Your task to perform on an android device: View the shopping cart on bestbuy. Search for razer blade on bestbuy, select the first entry, and add it to the cart. Image 0: 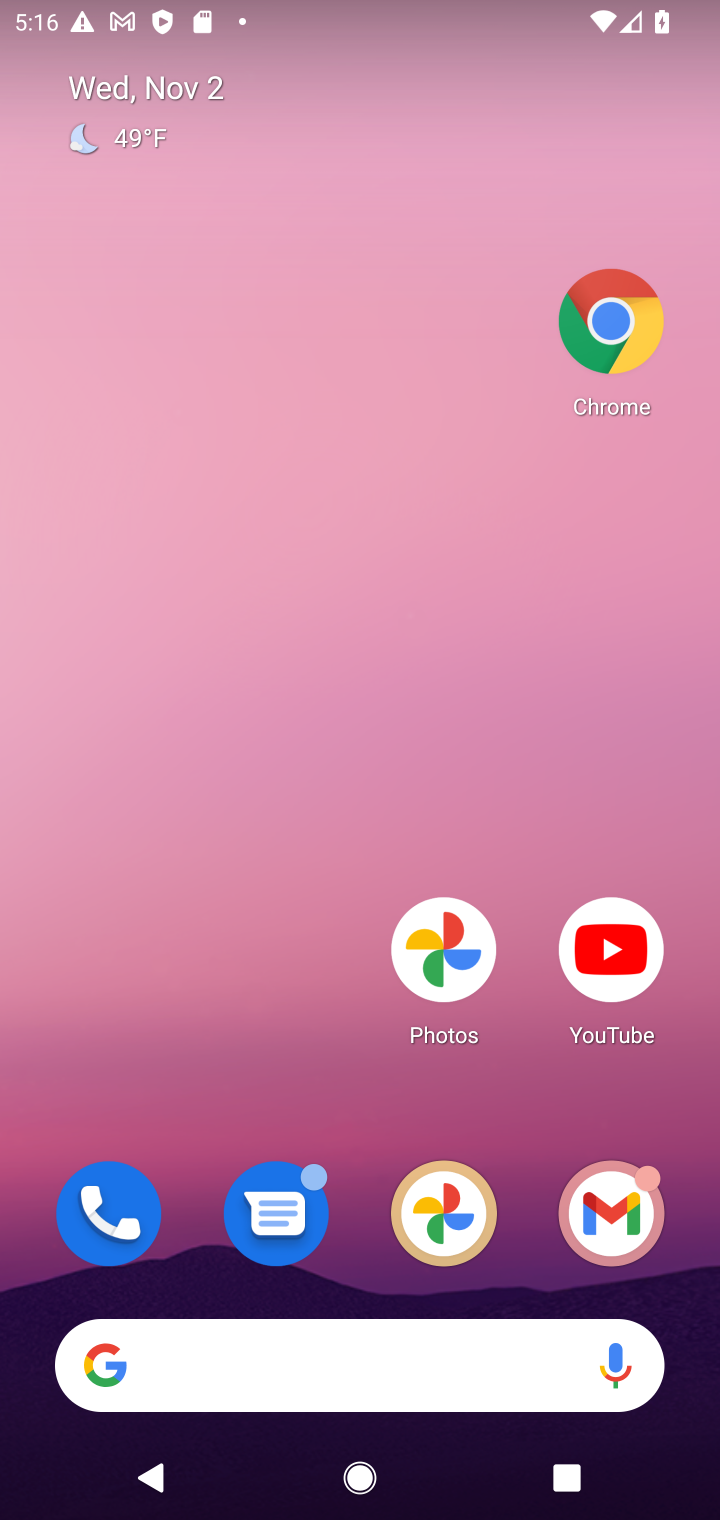
Step 0: click (395, 718)
Your task to perform on an android device: View the shopping cart on bestbuy. Search for razer blade on bestbuy, select the first entry, and add it to the cart. Image 1: 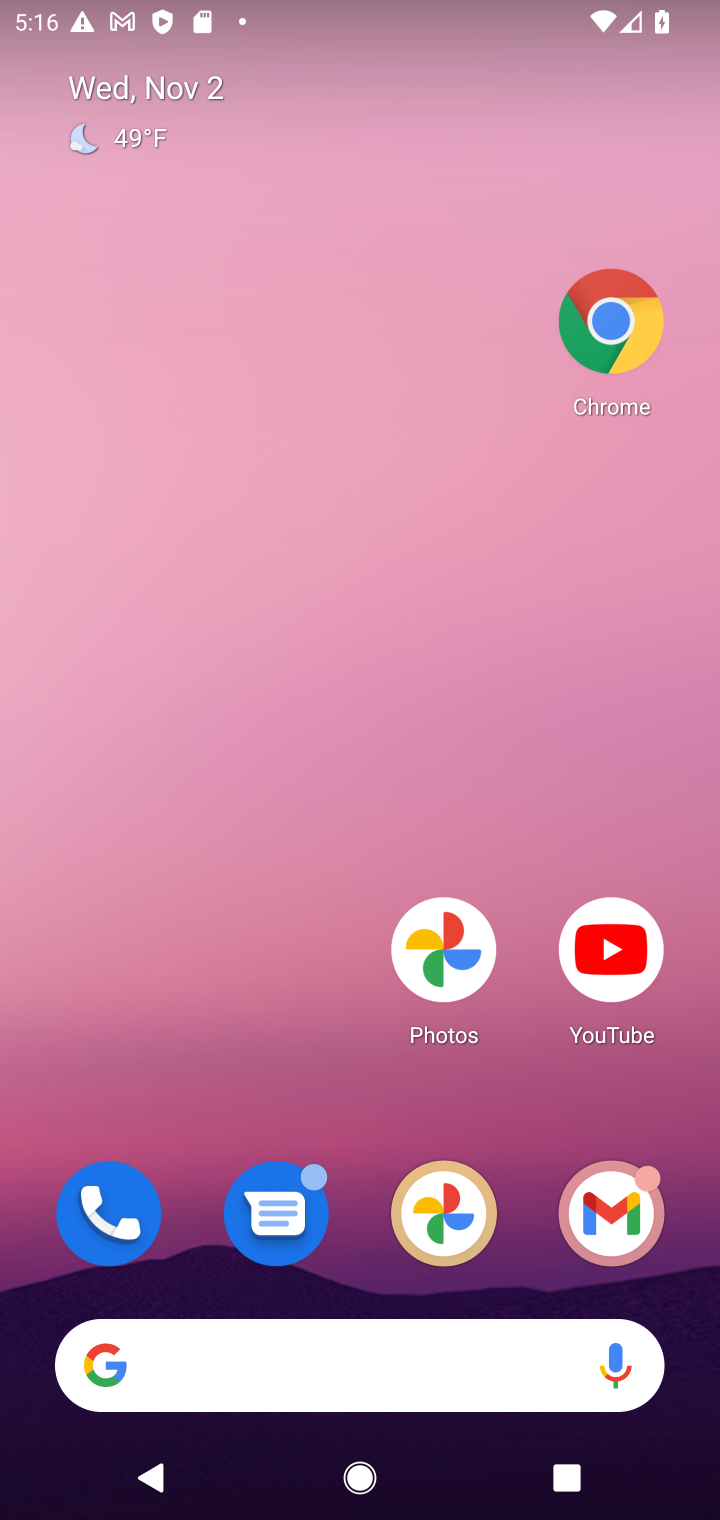
Step 1: drag from (380, 1201) to (474, 203)
Your task to perform on an android device: View the shopping cart on bestbuy. Search for razer blade on bestbuy, select the first entry, and add it to the cart. Image 2: 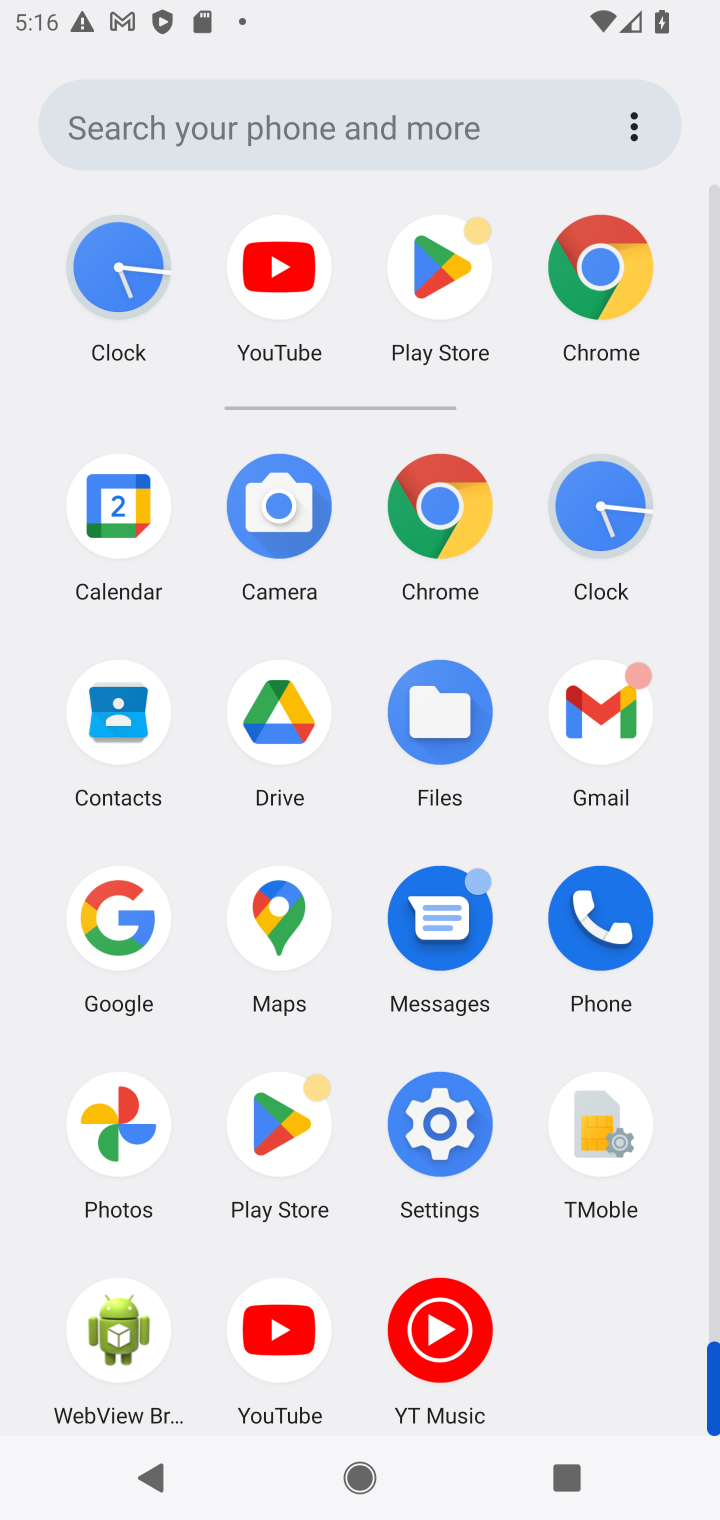
Step 2: click (91, 959)
Your task to perform on an android device: View the shopping cart on bestbuy. Search for razer blade on bestbuy, select the first entry, and add it to the cart. Image 3: 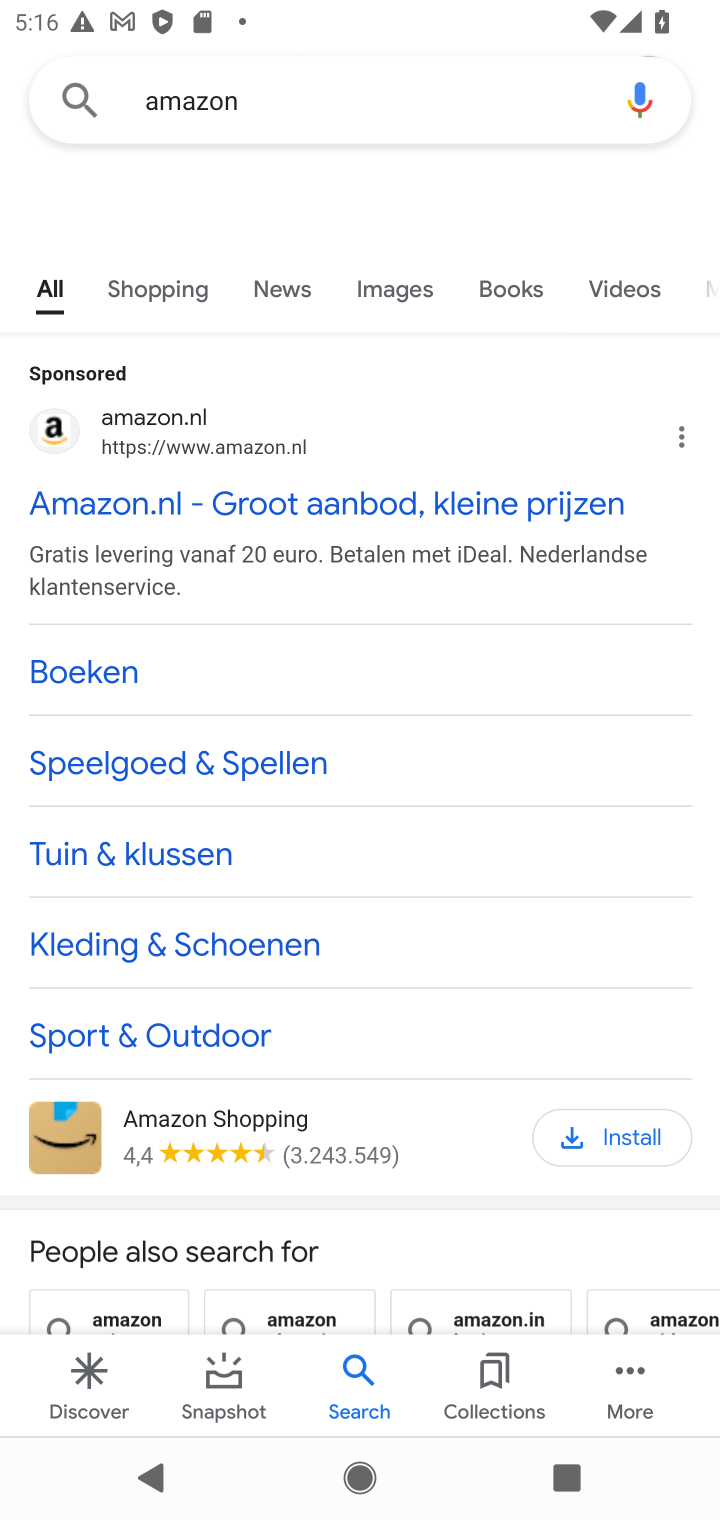
Step 3: click (398, 108)
Your task to perform on an android device: View the shopping cart on bestbuy. Search for razer blade on bestbuy, select the first entry, and add it to the cart. Image 4: 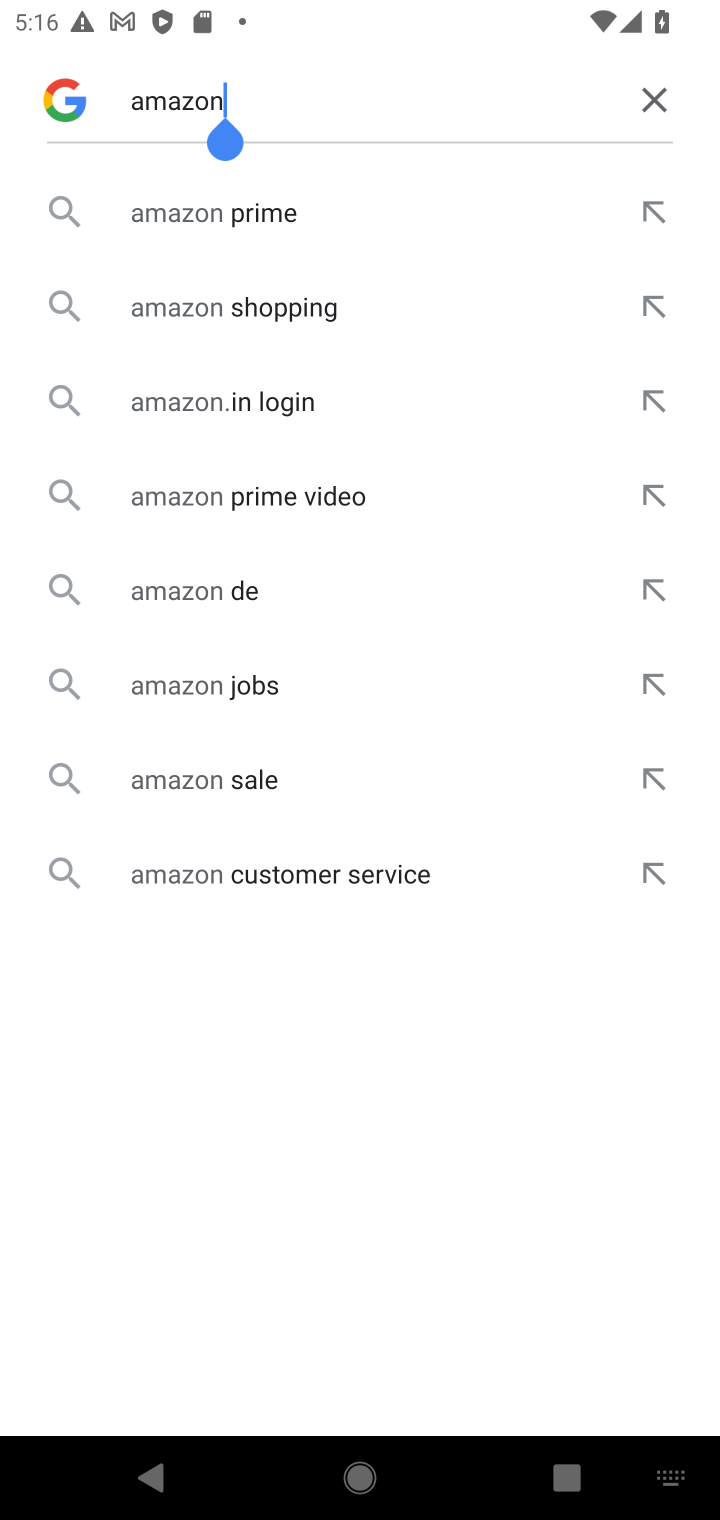
Step 4: click (642, 99)
Your task to perform on an android device: View the shopping cart on bestbuy. Search for razer blade on bestbuy, select the first entry, and add it to the cart. Image 5: 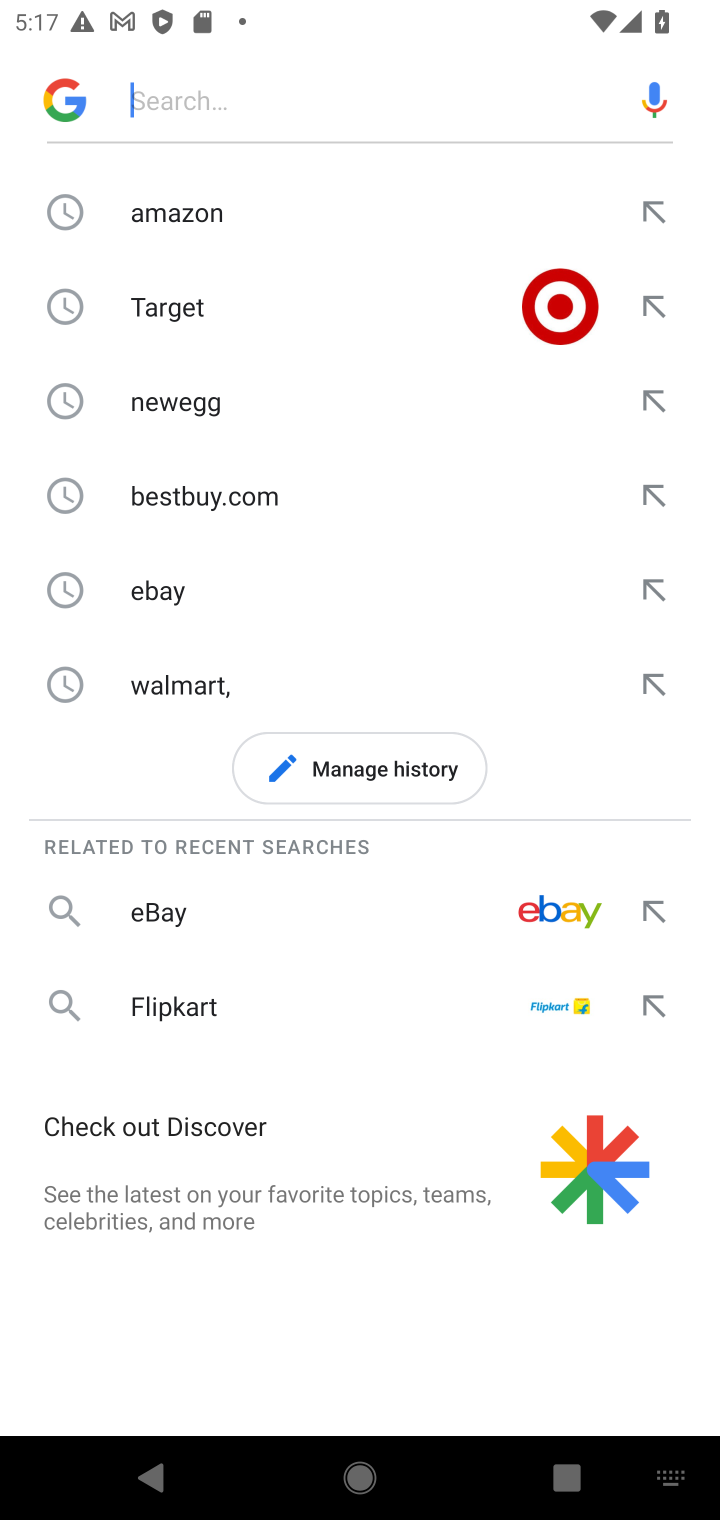
Step 5: type "bestbuy"
Your task to perform on an android device: View the shopping cart on bestbuy. Search for razer blade on bestbuy, select the first entry, and add it to the cart. Image 6: 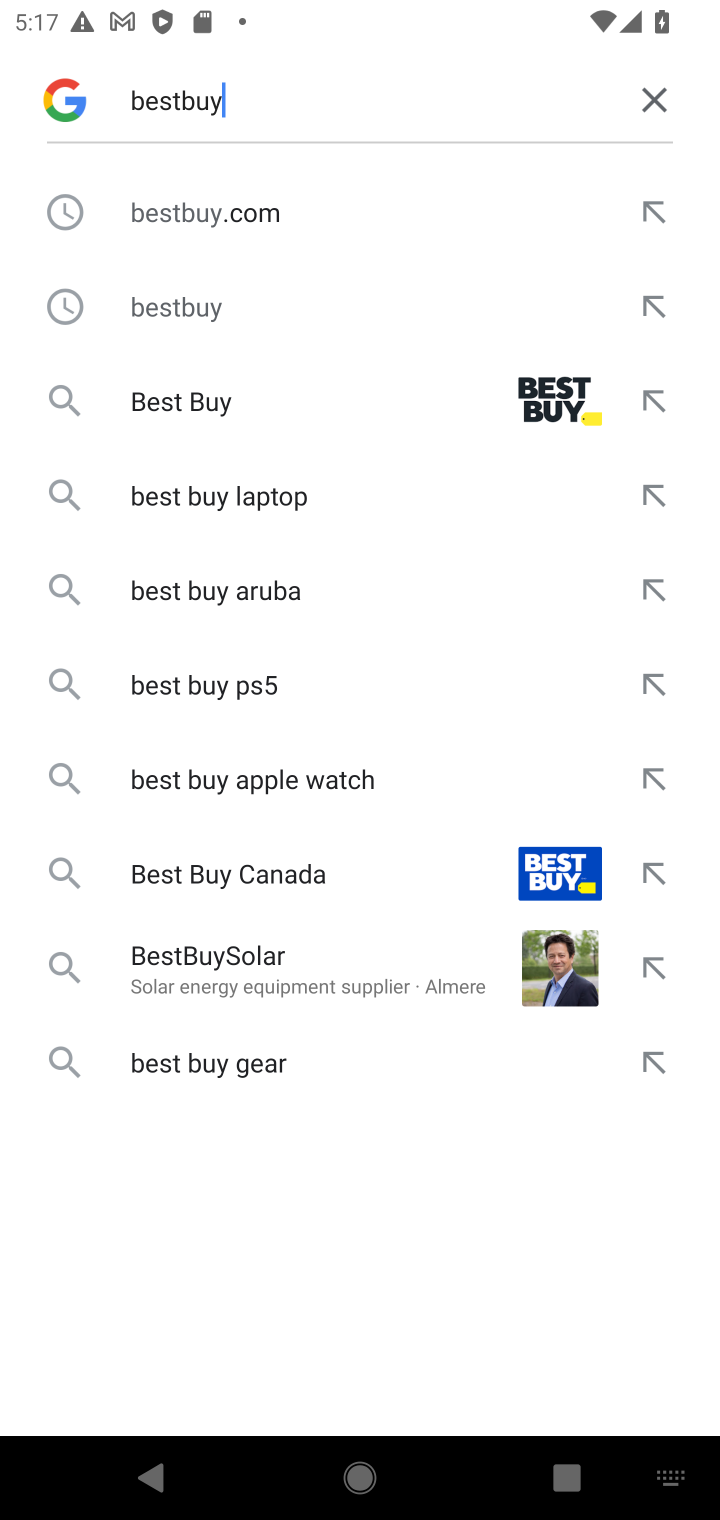
Step 6: click (262, 316)
Your task to perform on an android device: View the shopping cart on bestbuy. Search for razer blade on bestbuy, select the first entry, and add it to the cart. Image 7: 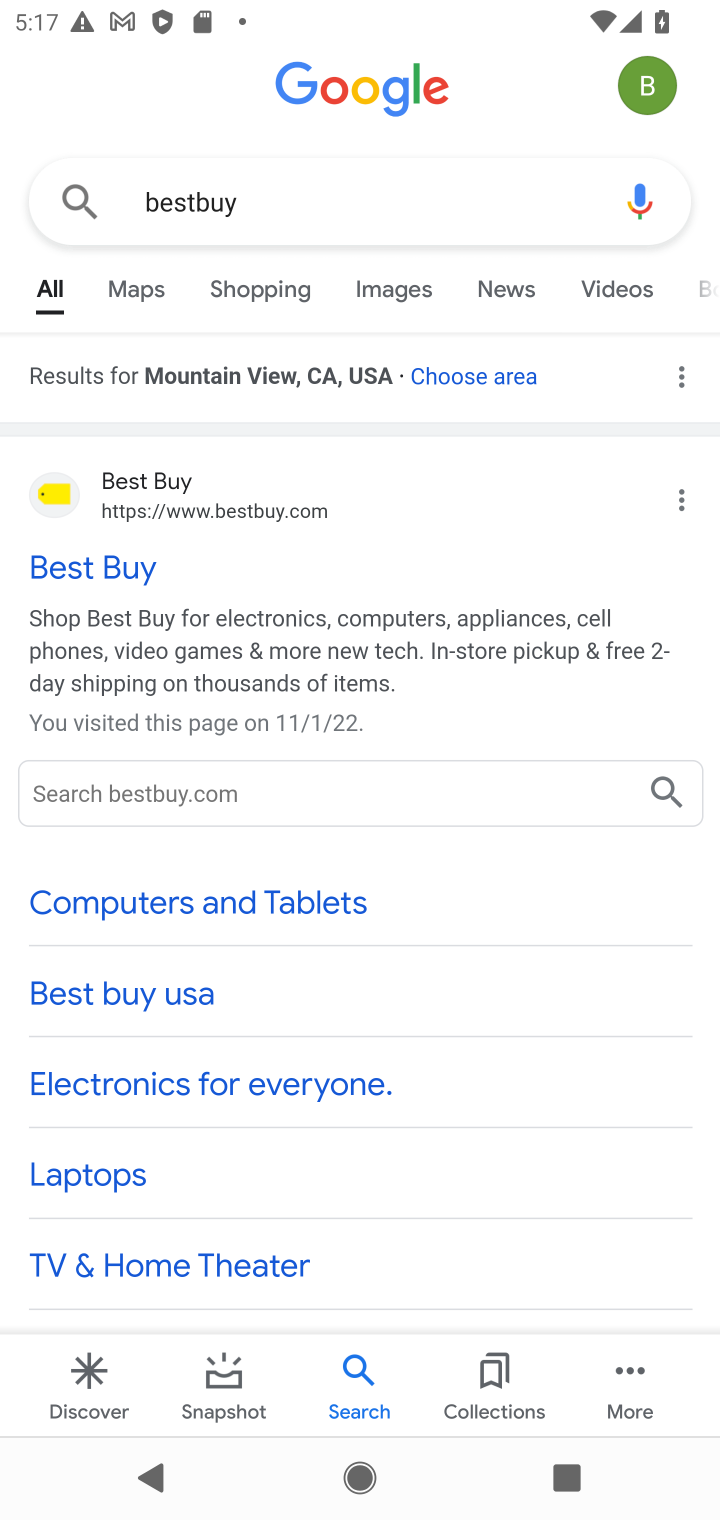
Step 7: click (82, 584)
Your task to perform on an android device: View the shopping cart on bestbuy. Search for razer blade on bestbuy, select the first entry, and add it to the cart. Image 8: 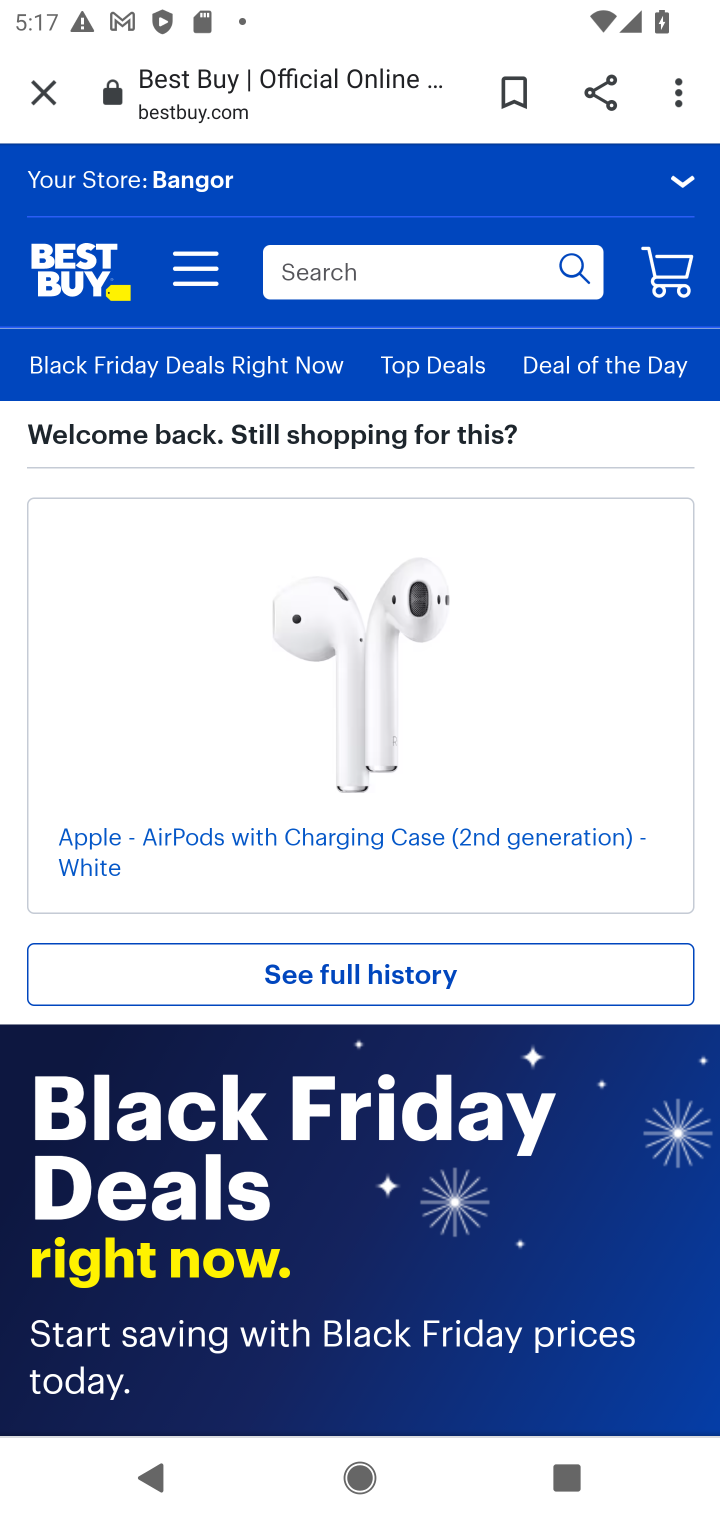
Step 8: click (372, 275)
Your task to perform on an android device: View the shopping cart on bestbuy. Search for razer blade on bestbuy, select the first entry, and add it to the cart. Image 9: 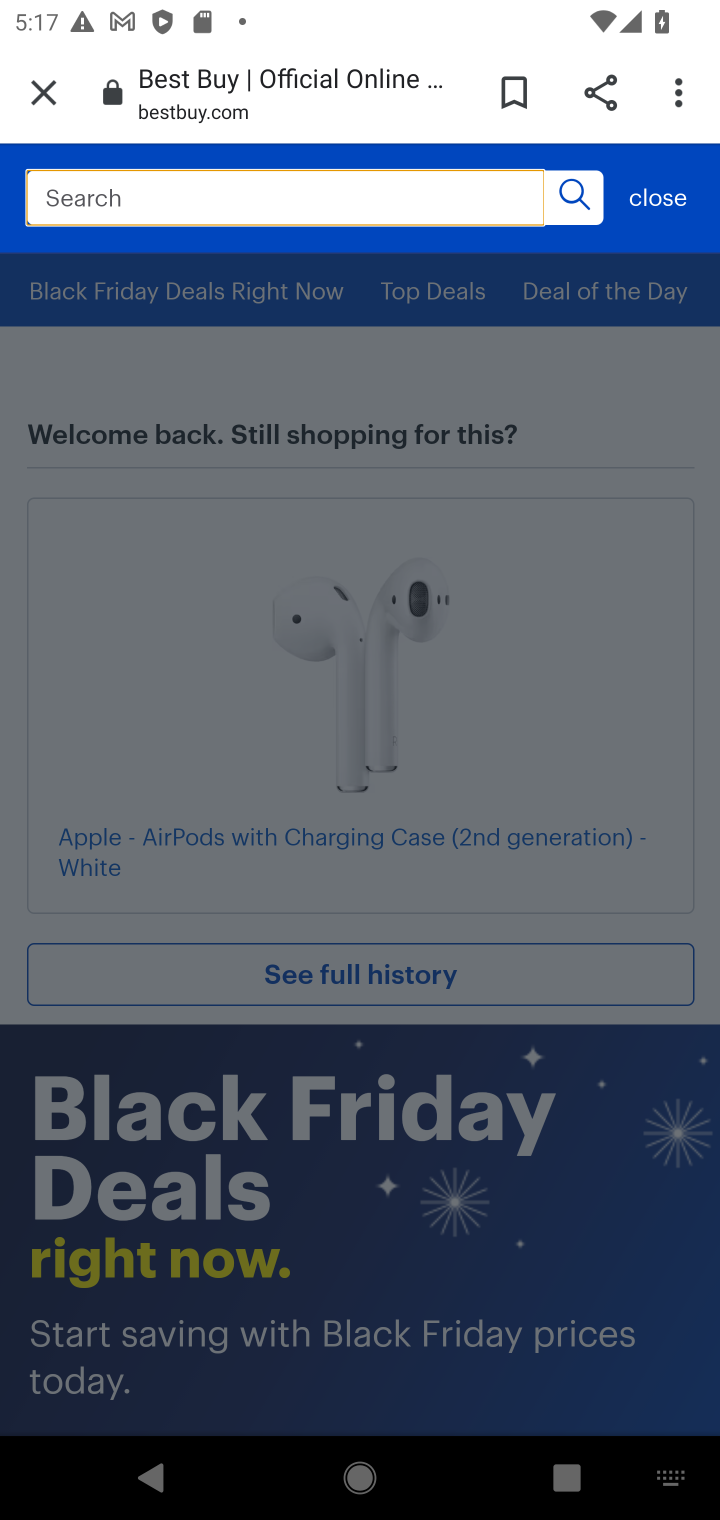
Step 9: type "razer blade"
Your task to perform on an android device: View the shopping cart on bestbuy. Search for razer blade on bestbuy, select the first entry, and add it to the cart. Image 10: 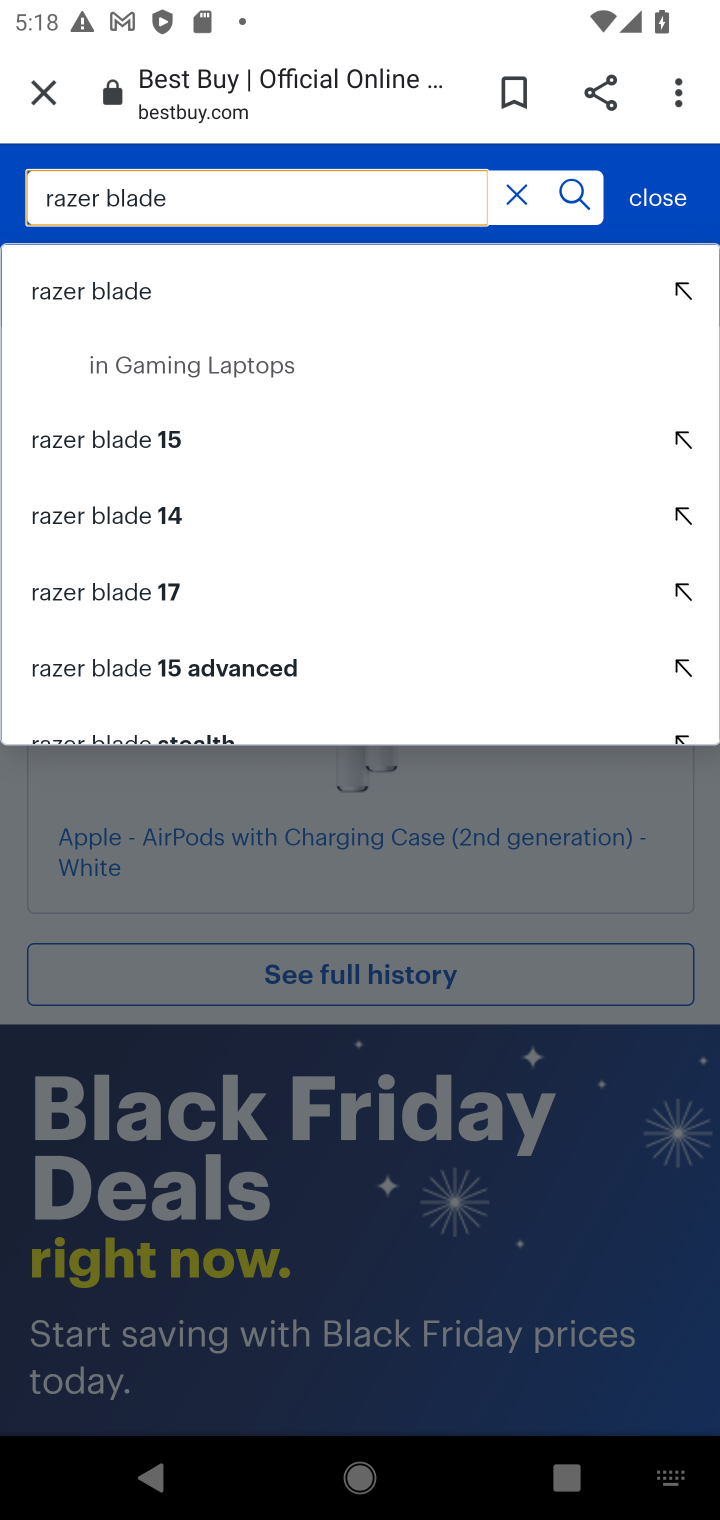
Step 10: click (249, 296)
Your task to perform on an android device: View the shopping cart on bestbuy. Search for razer blade on bestbuy, select the first entry, and add it to the cart. Image 11: 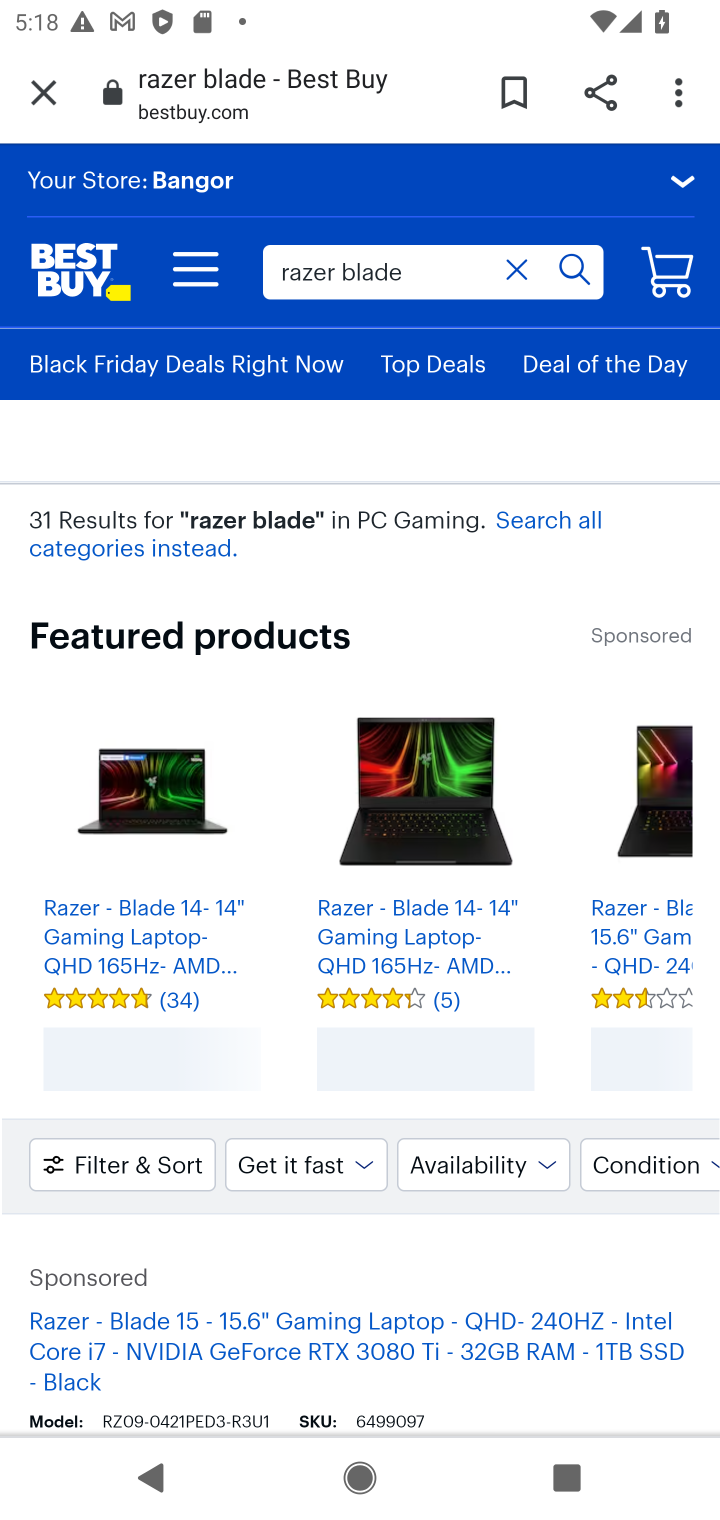
Step 11: click (102, 942)
Your task to perform on an android device: View the shopping cart on bestbuy. Search for razer blade on bestbuy, select the first entry, and add it to the cart. Image 12: 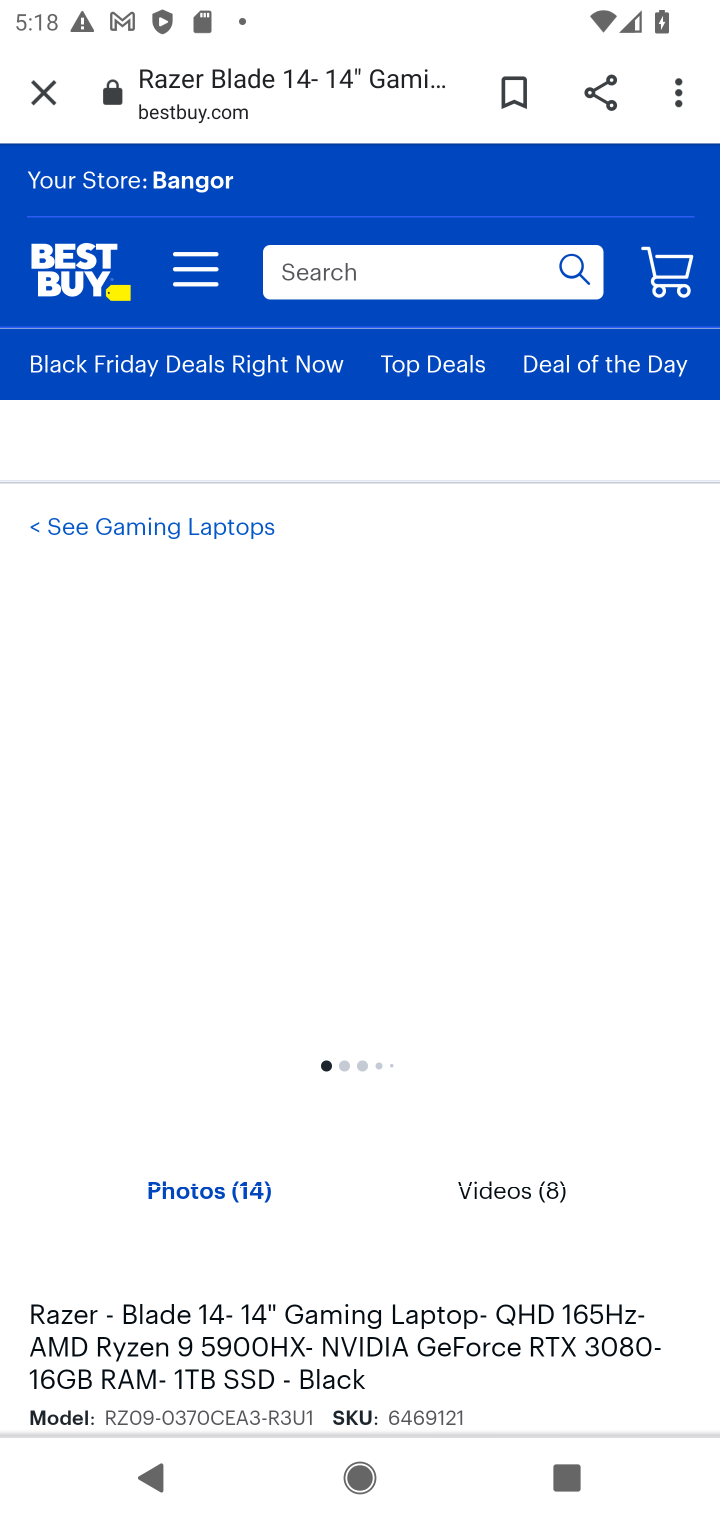
Step 12: click (102, 942)
Your task to perform on an android device: View the shopping cart on bestbuy. Search for razer blade on bestbuy, select the first entry, and add it to the cart. Image 13: 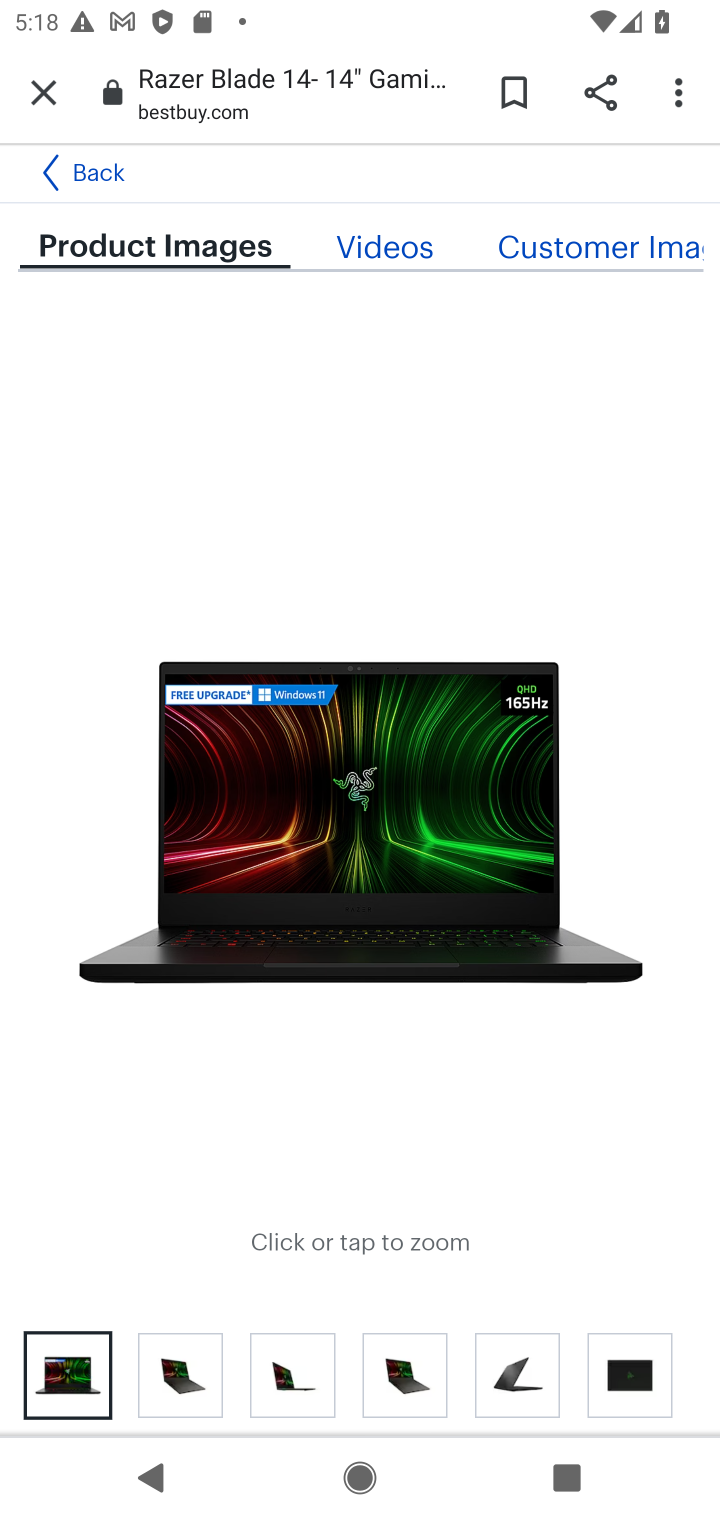
Step 13: drag from (409, 1021) to (368, 496)
Your task to perform on an android device: View the shopping cart on bestbuy. Search for razer blade on bestbuy, select the first entry, and add it to the cart. Image 14: 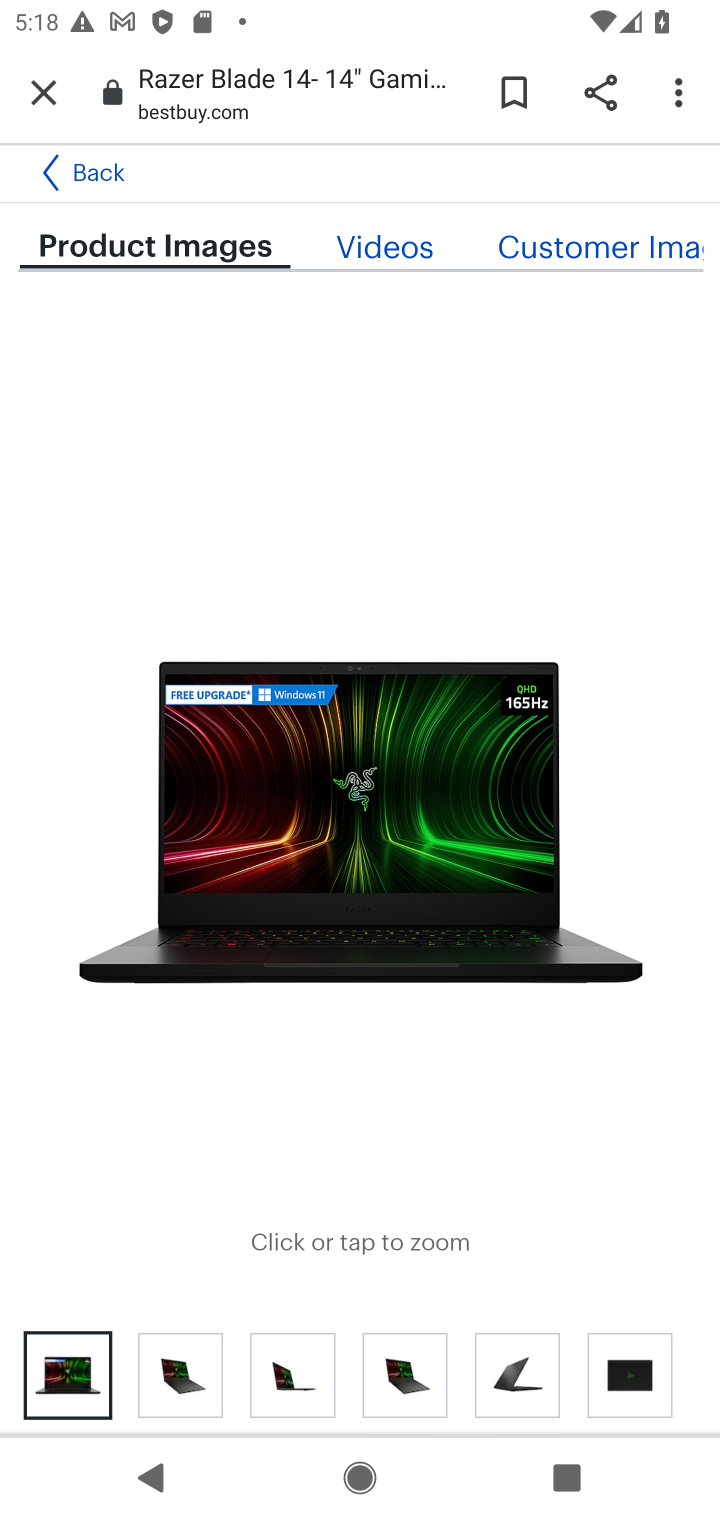
Step 14: click (236, 384)
Your task to perform on an android device: View the shopping cart on bestbuy. Search for razer blade on bestbuy, select the first entry, and add it to the cart. Image 15: 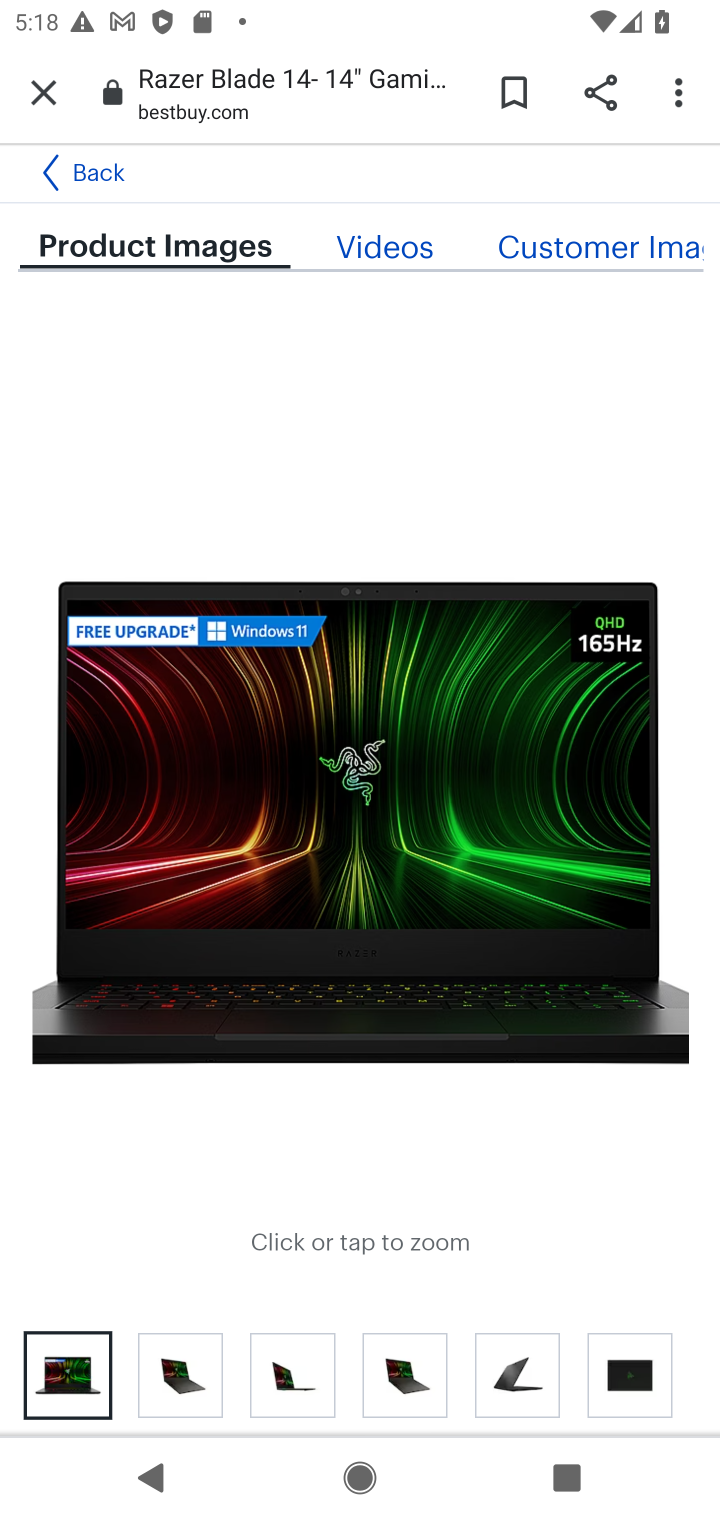
Step 15: click (68, 175)
Your task to perform on an android device: View the shopping cart on bestbuy. Search for razer blade on bestbuy, select the first entry, and add it to the cart. Image 16: 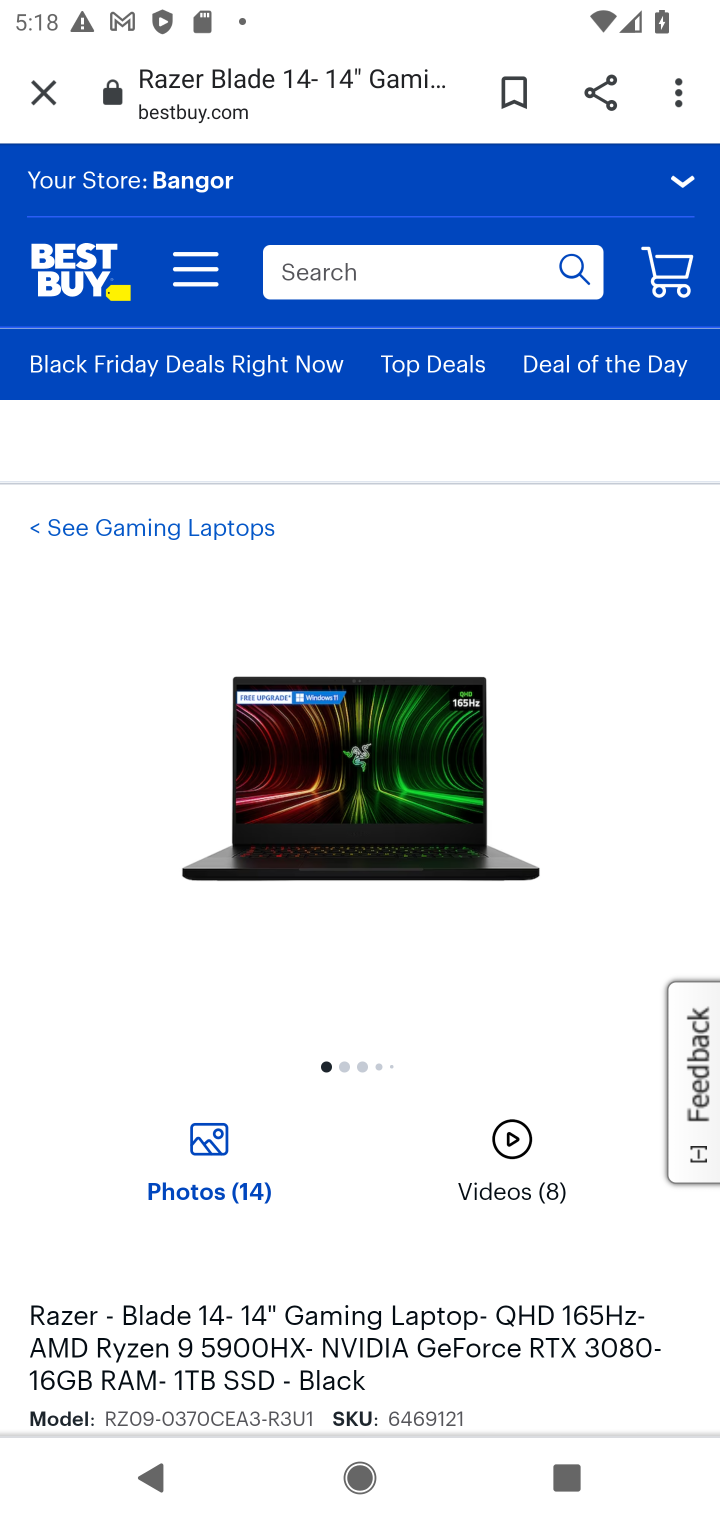
Step 16: drag from (544, 1093) to (548, 371)
Your task to perform on an android device: View the shopping cart on bestbuy. Search for razer blade on bestbuy, select the first entry, and add it to the cart. Image 17: 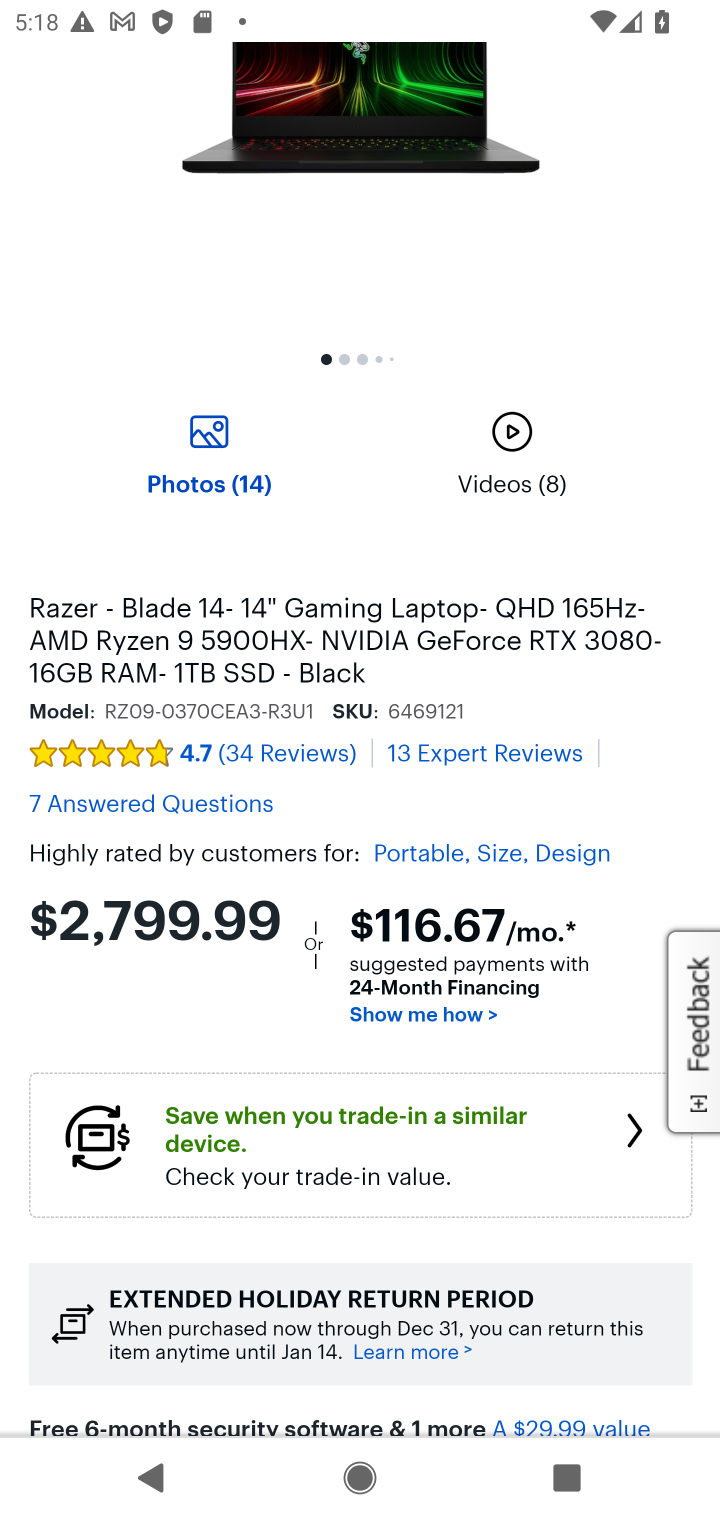
Step 17: drag from (520, 1104) to (455, 403)
Your task to perform on an android device: View the shopping cart on bestbuy. Search for razer blade on bestbuy, select the first entry, and add it to the cart. Image 18: 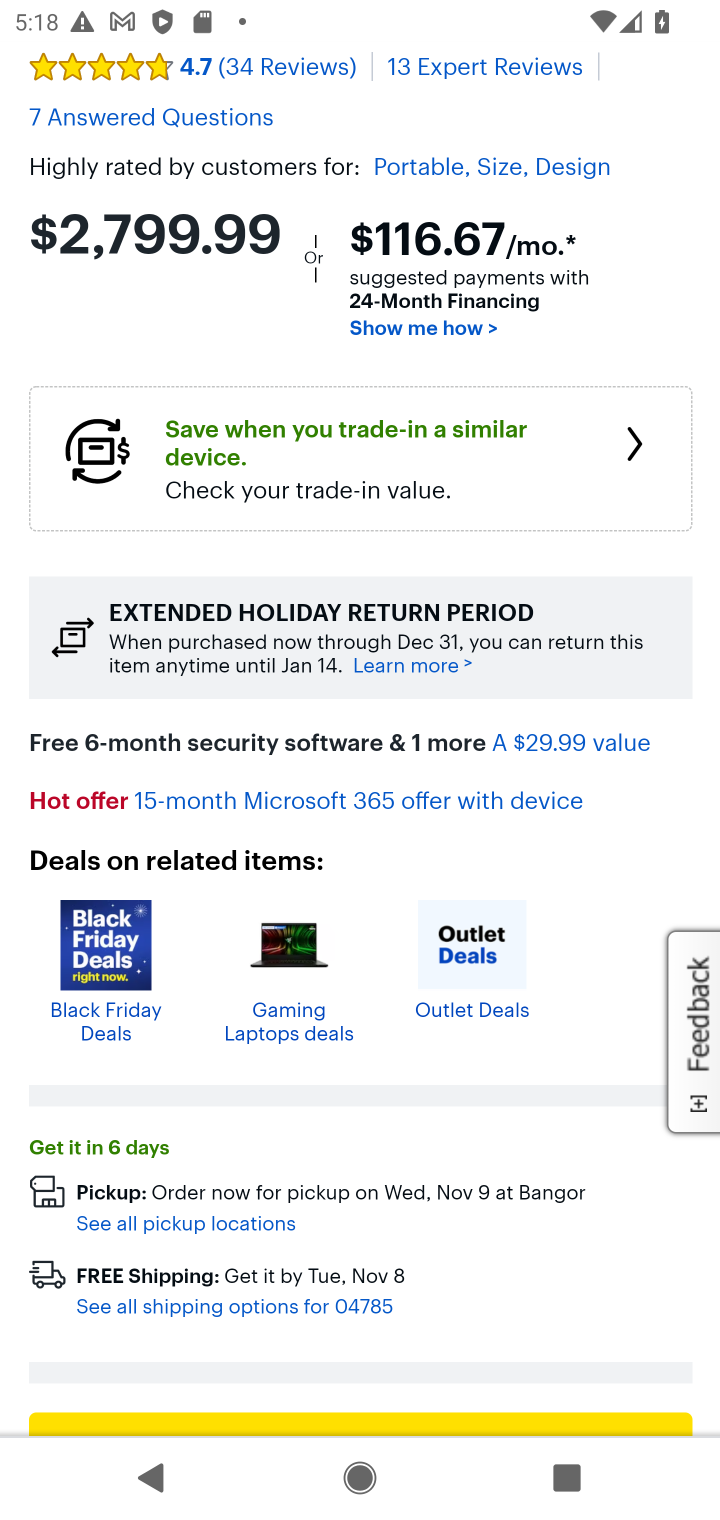
Step 18: click (554, 437)
Your task to perform on an android device: View the shopping cart on bestbuy. Search for razer blade on bestbuy, select the first entry, and add it to the cart. Image 19: 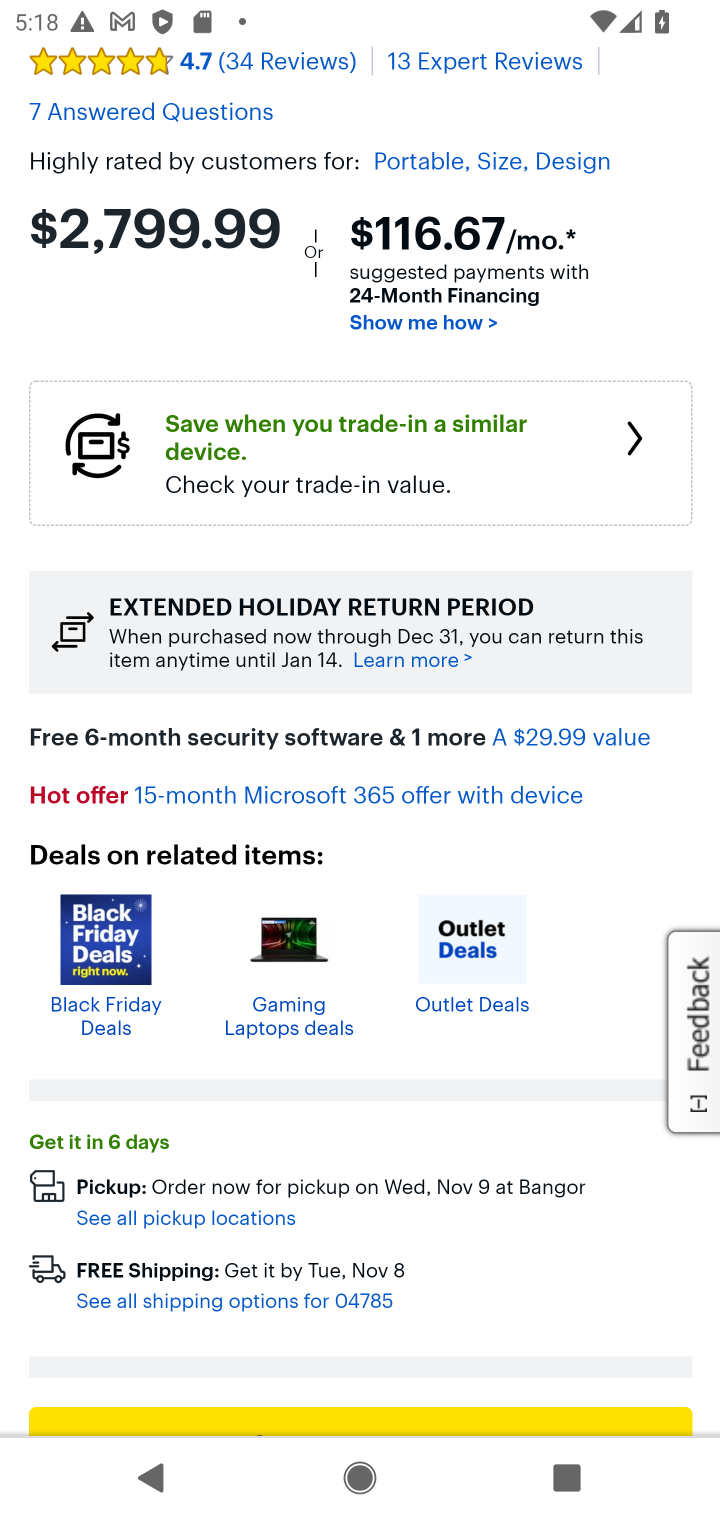
Step 19: drag from (529, 1272) to (526, 408)
Your task to perform on an android device: View the shopping cart on bestbuy. Search for razer blade on bestbuy, select the first entry, and add it to the cart. Image 20: 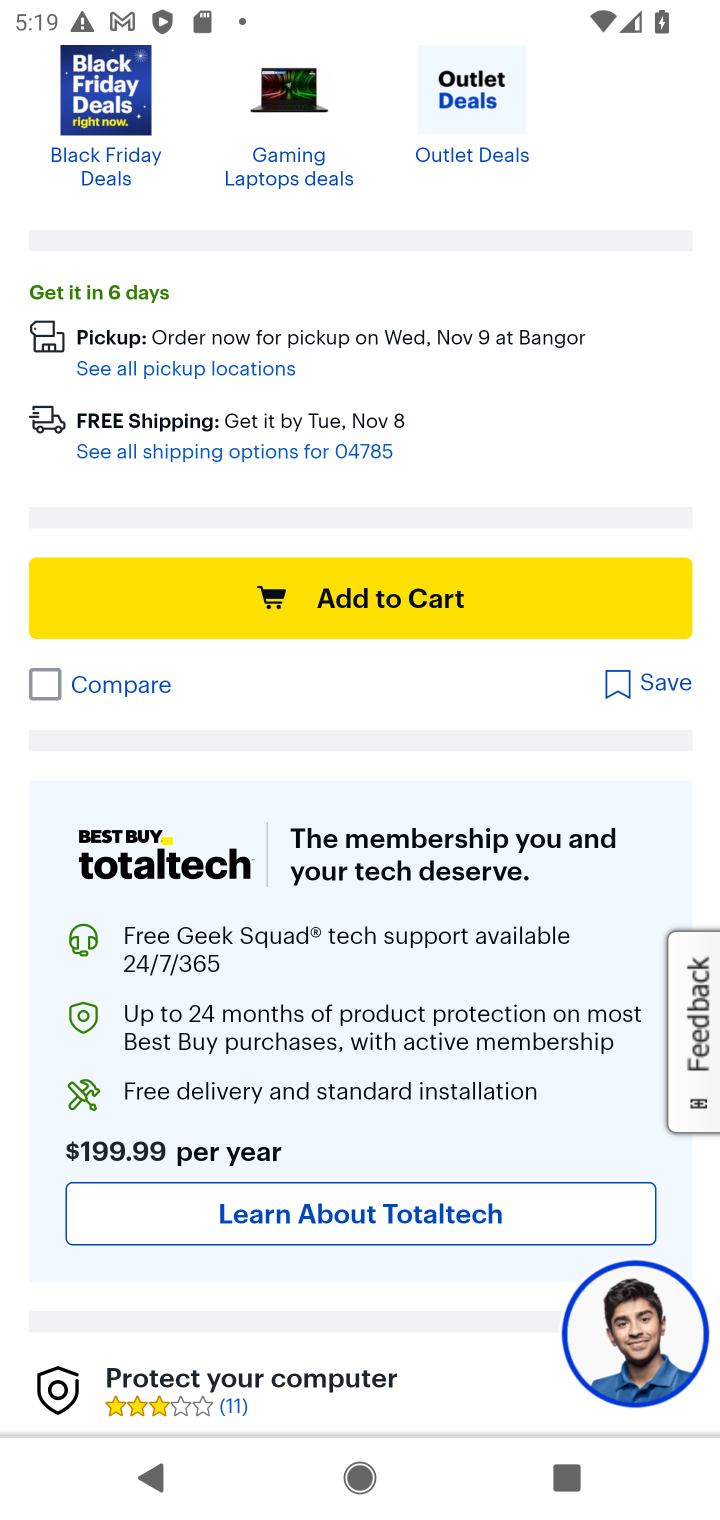
Step 20: click (517, 590)
Your task to perform on an android device: View the shopping cart on bestbuy. Search for razer blade on bestbuy, select the first entry, and add it to the cart. Image 21: 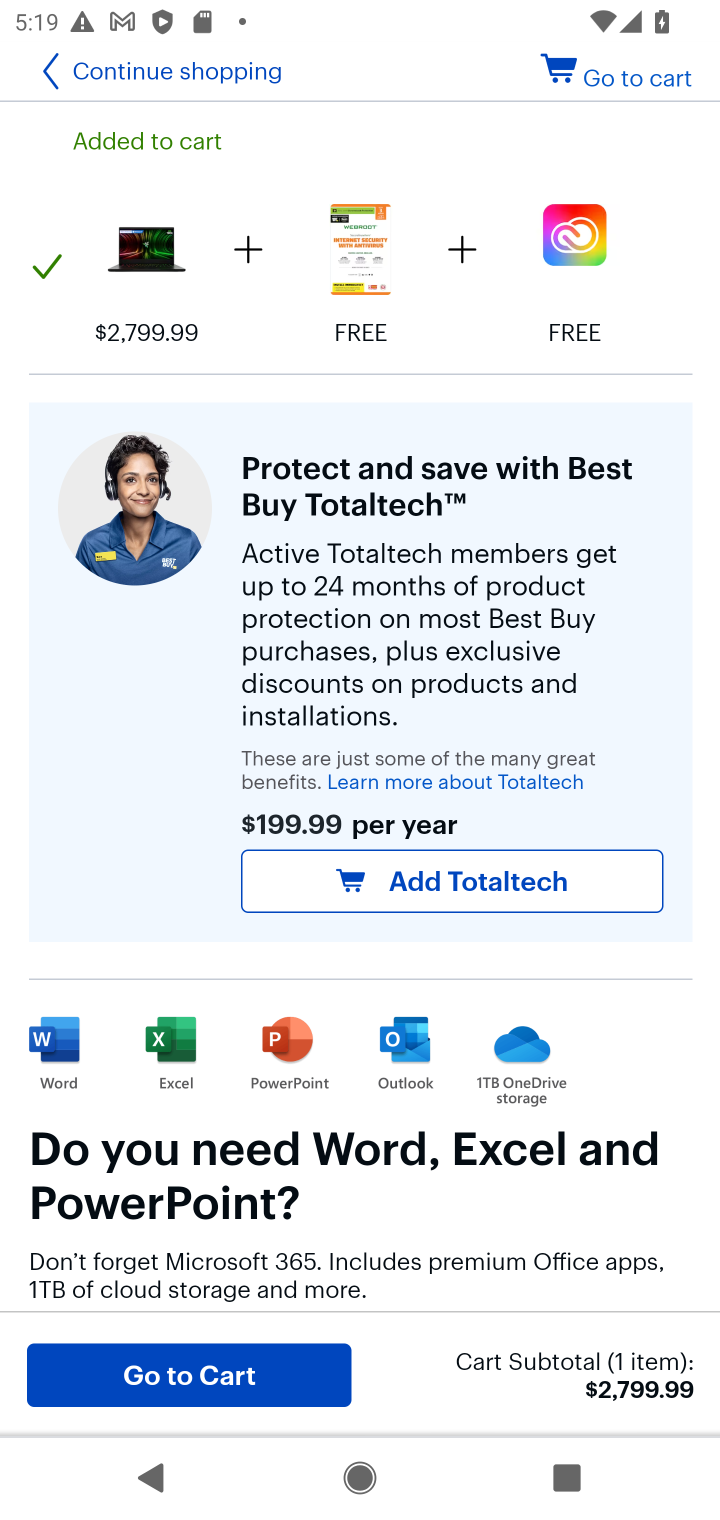
Step 21: task complete